Your task to perform on an android device: toggle show notifications on the lock screen Image 0: 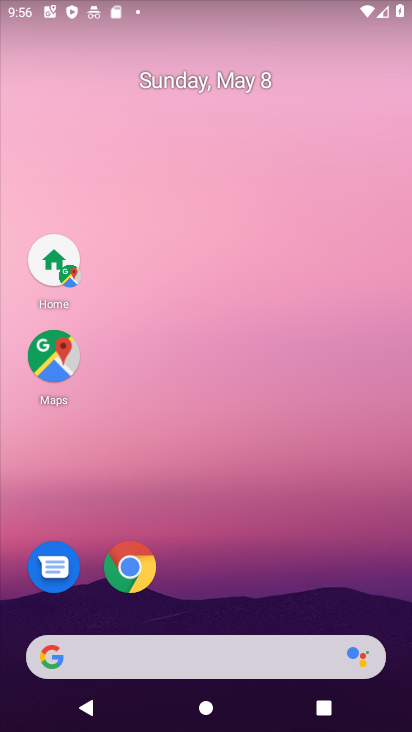
Step 0: drag from (320, 620) to (99, 106)
Your task to perform on an android device: toggle show notifications on the lock screen Image 1: 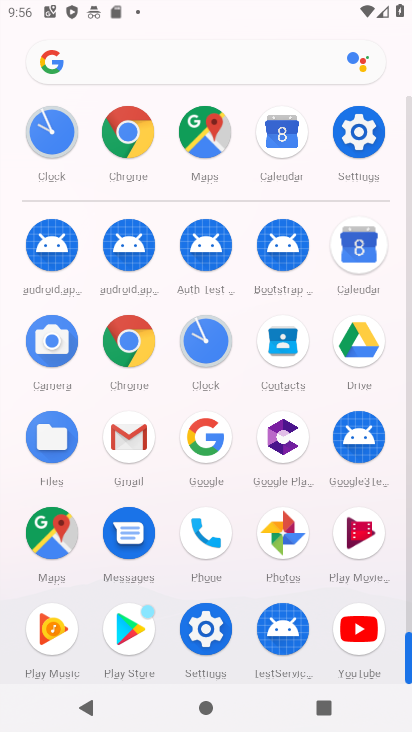
Step 1: click (354, 131)
Your task to perform on an android device: toggle show notifications on the lock screen Image 2: 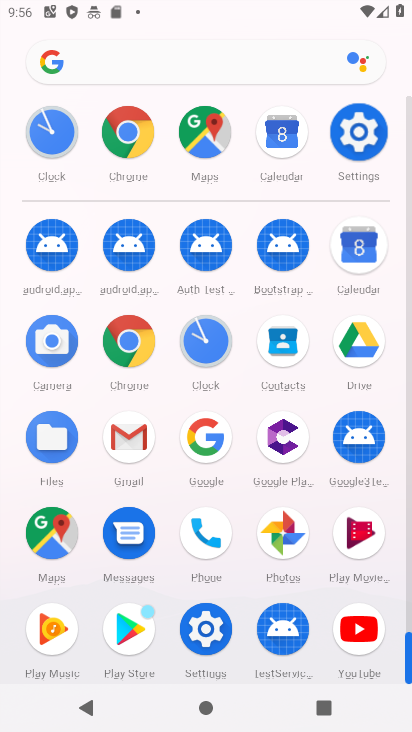
Step 2: click (363, 141)
Your task to perform on an android device: toggle show notifications on the lock screen Image 3: 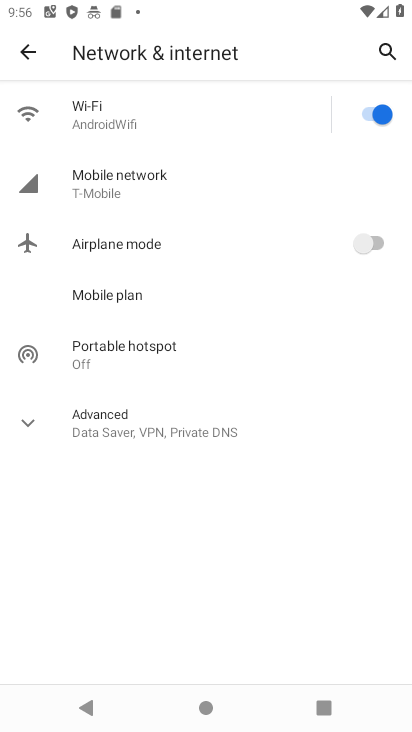
Step 3: click (22, 59)
Your task to perform on an android device: toggle show notifications on the lock screen Image 4: 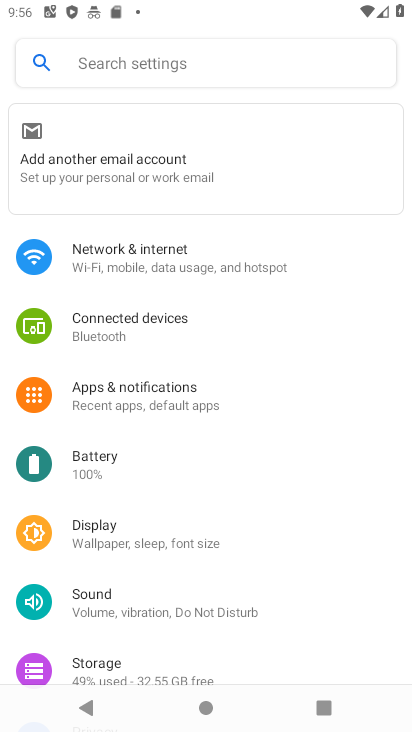
Step 4: click (110, 394)
Your task to perform on an android device: toggle show notifications on the lock screen Image 5: 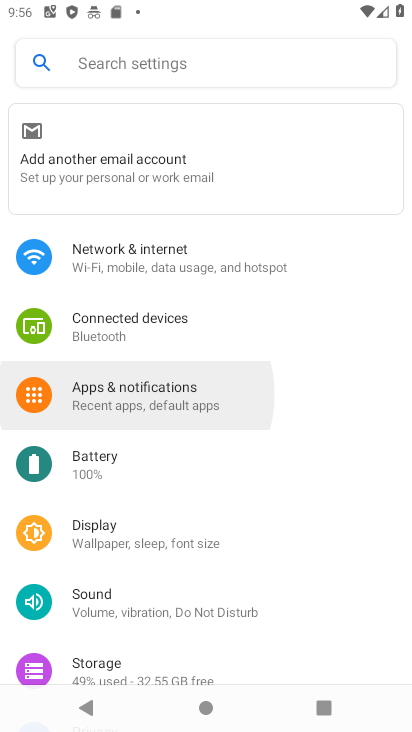
Step 5: click (110, 394)
Your task to perform on an android device: toggle show notifications on the lock screen Image 6: 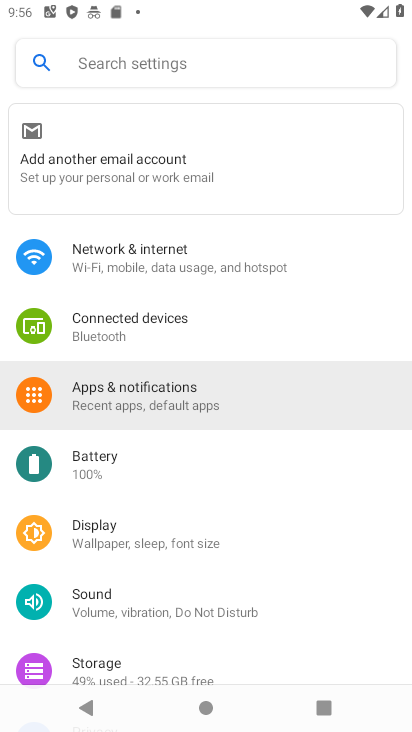
Step 6: click (110, 395)
Your task to perform on an android device: toggle show notifications on the lock screen Image 7: 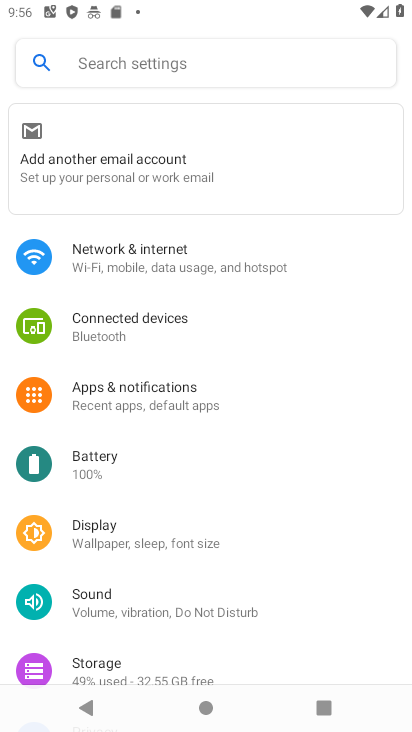
Step 7: click (110, 395)
Your task to perform on an android device: toggle show notifications on the lock screen Image 8: 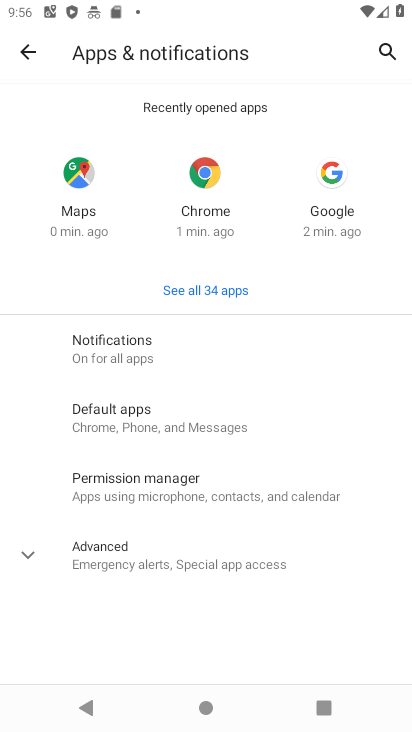
Step 8: click (112, 340)
Your task to perform on an android device: toggle show notifications on the lock screen Image 9: 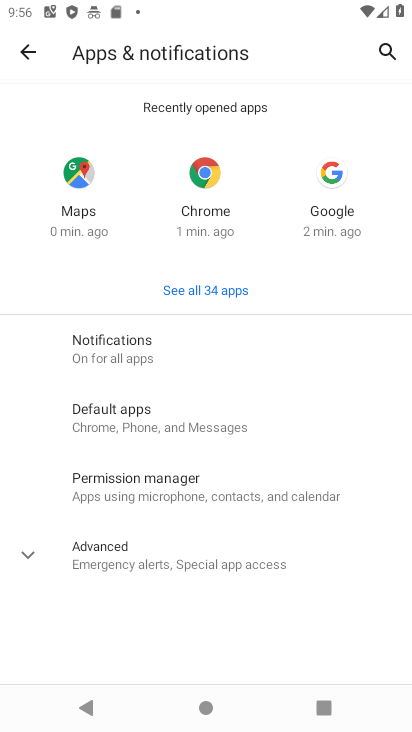
Step 9: click (111, 350)
Your task to perform on an android device: toggle show notifications on the lock screen Image 10: 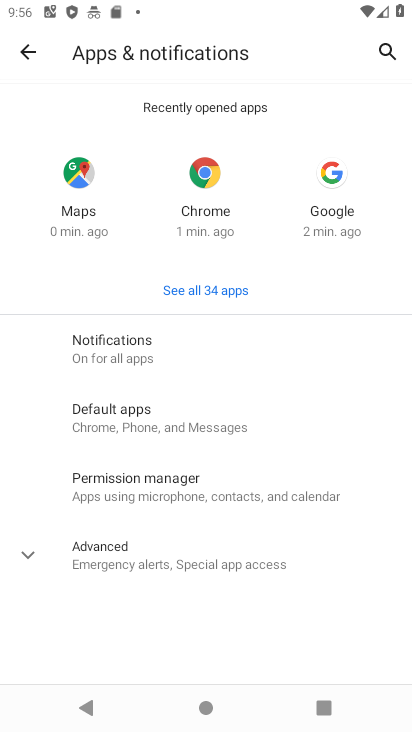
Step 10: click (111, 350)
Your task to perform on an android device: toggle show notifications on the lock screen Image 11: 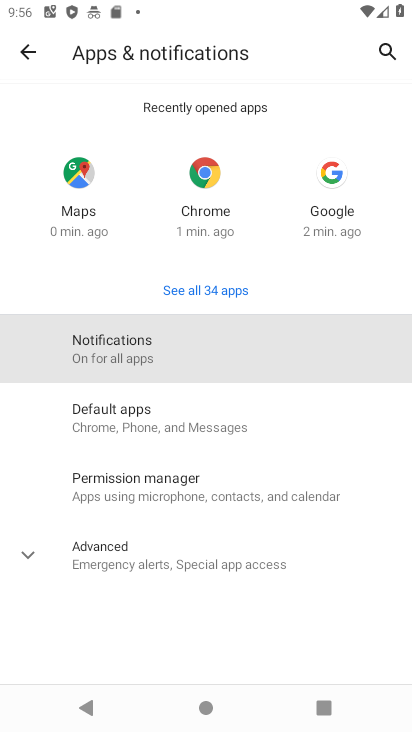
Step 11: click (111, 350)
Your task to perform on an android device: toggle show notifications on the lock screen Image 12: 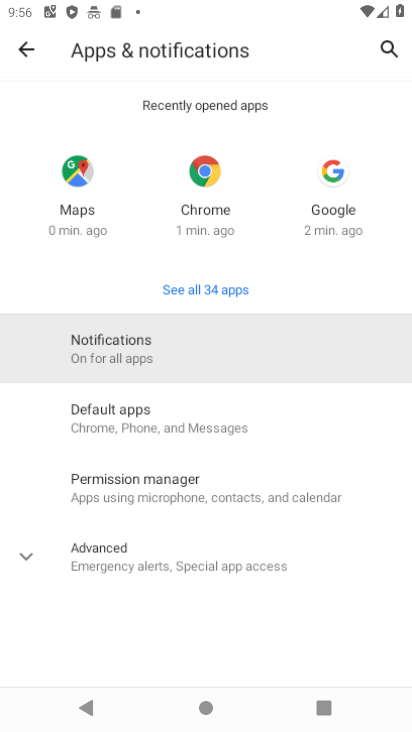
Step 12: click (111, 350)
Your task to perform on an android device: toggle show notifications on the lock screen Image 13: 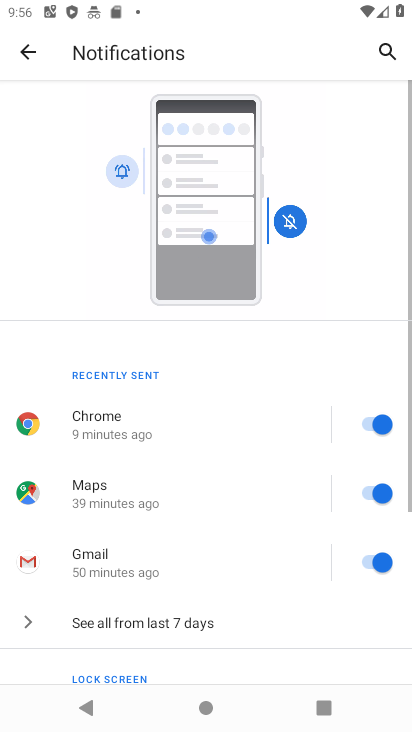
Step 13: drag from (213, 591) to (101, 134)
Your task to perform on an android device: toggle show notifications on the lock screen Image 14: 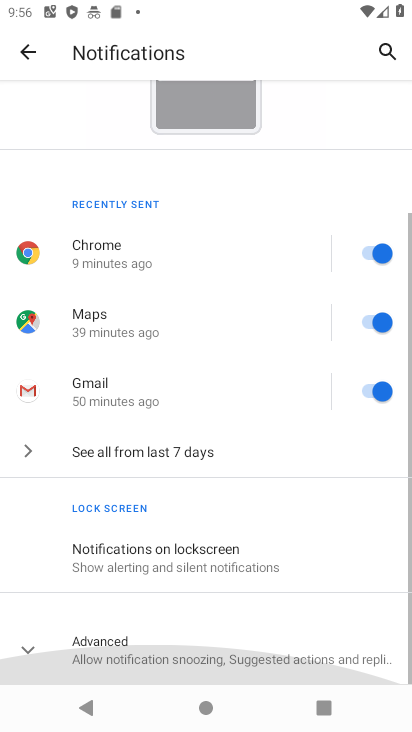
Step 14: drag from (277, 480) to (303, 161)
Your task to perform on an android device: toggle show notifications on the lock screen Image 15: 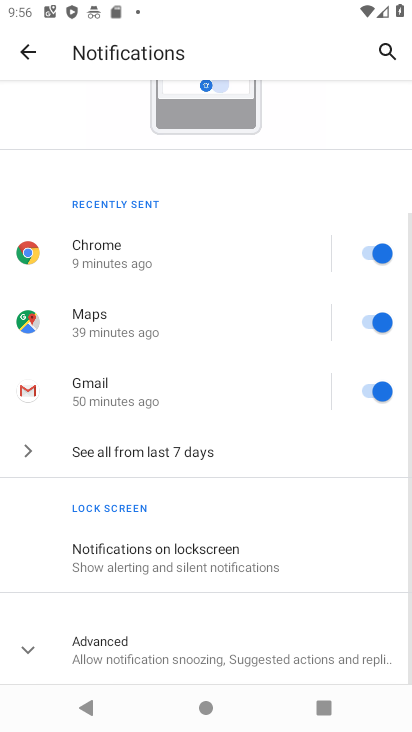
Step 15: drag from (226, 453) to (144, 167)
Your task to perform on an android device: toggle show notifications on the lock screen Image 16: 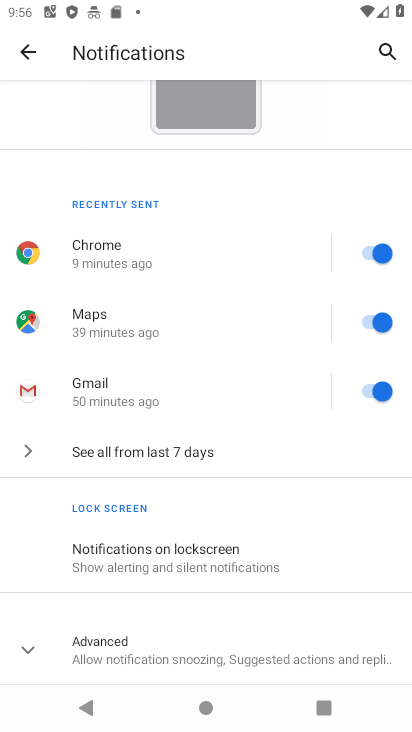
Step 16: click (135, 559)
Your task to perform on an android device: toggle show notifications on the lock screen Image 17: 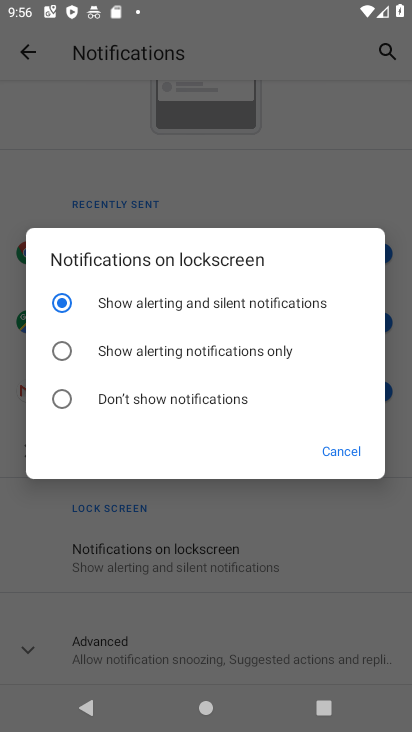
Step 17: click (331, 450)
Your task to perform on an android device: toggle show notifications on the lock screen Image 18: 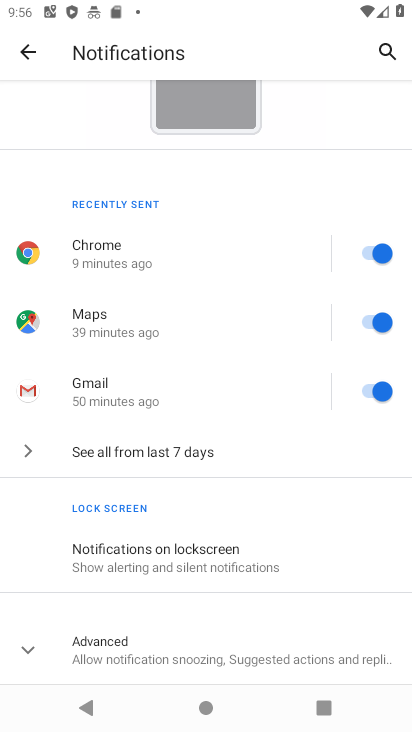
Step 18: task complete